Your task to perform on an android device: clear history in the chrome app Image 0: 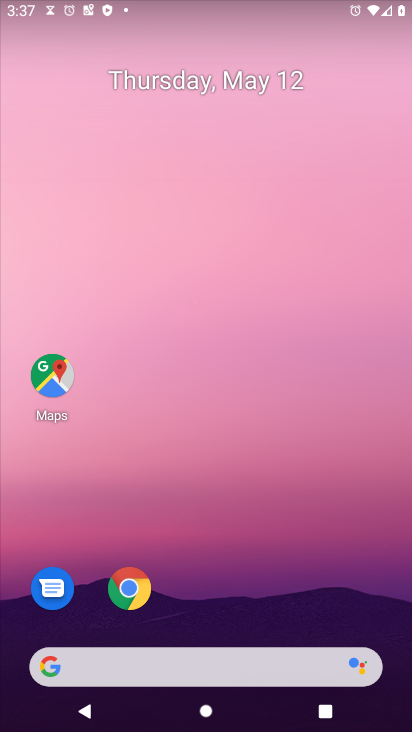
Step 0: drag from (244, 557) to (228, 37)
Your task to perform on an android device: clear history in the chrome app Image 1: 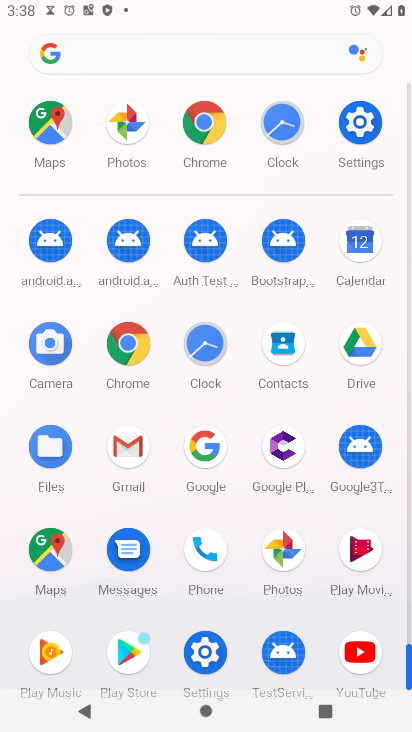
Step 1: drag from (10, 535) to (22, 203)
Your task to perform on an android device: clear history in the chrome app Image 2: 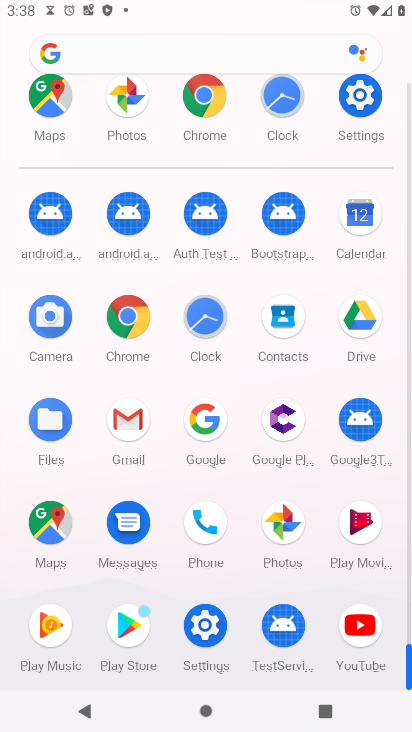
Step 2: click (124, 311)
Your task to perform on an android device: clear history in the chrome app Image 3: 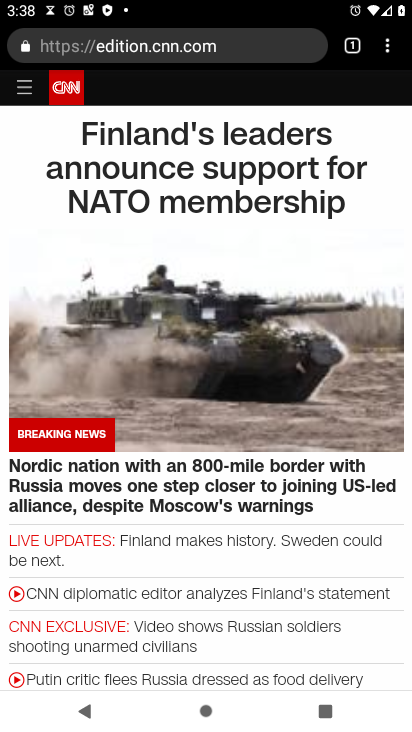
Step 3: drag from (390, 47) to (230, 546)
Your task to perform on an android device: clear history in the chrome app Image 4: 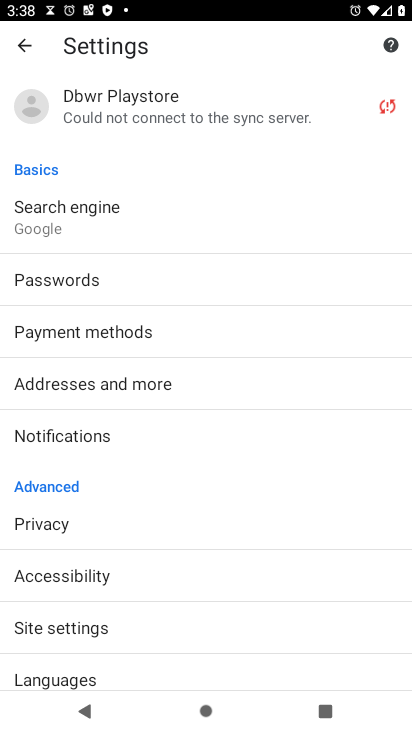
Step 4: drag from (233, 556) to (239, 325)
Your task to perform on an android device: clear history in the chrome app Image 5: 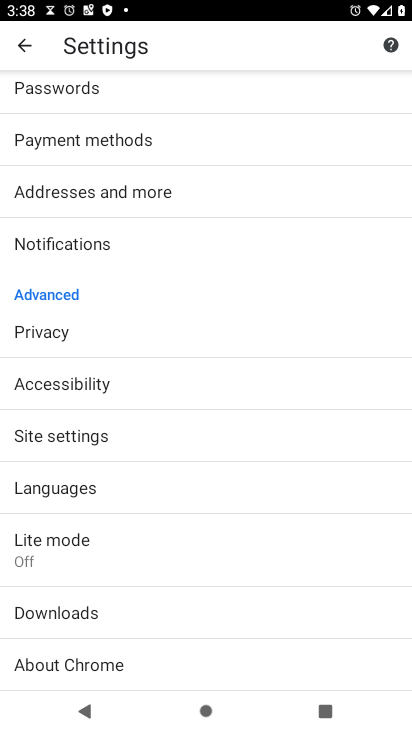
Step 5: drag from (229, 565) to (258, 245)
Your task to perform on an android device: clear history in the chrome app Image 6: 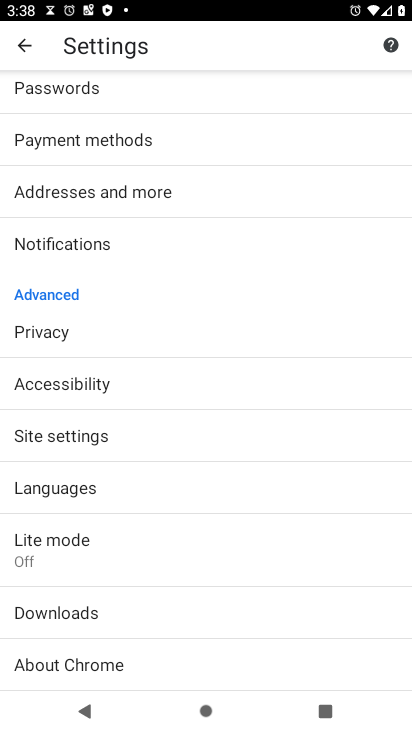
Step 6: drag from (250, 199) to (232, 585)
Your task to perform on an android device: clear history in the chrome app Image 7: 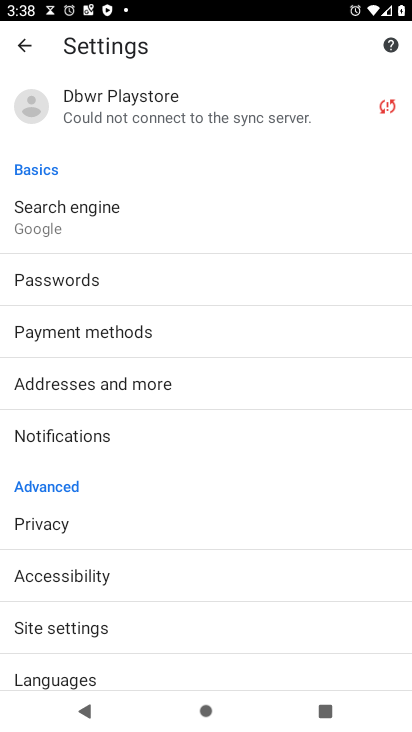
Step 7: drag from (235, 532) to (219, 194)
Your task to perform on an android device: clear history in the chrome app Image 8: 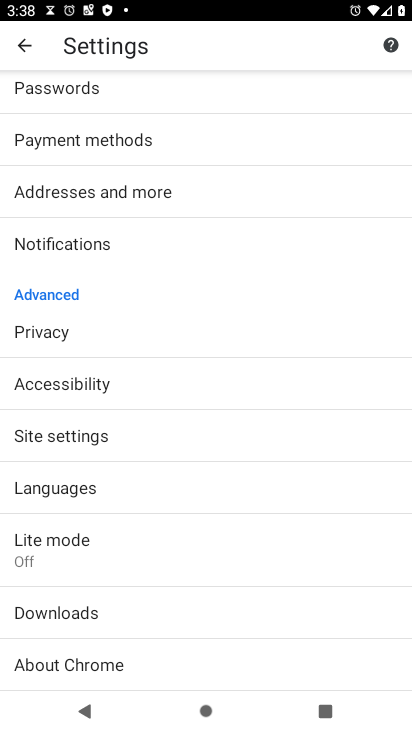
Step 8: drag from (189, 576) to (201, 195)
Your task to perform on an android device: clear history in the chrome app Image 9: 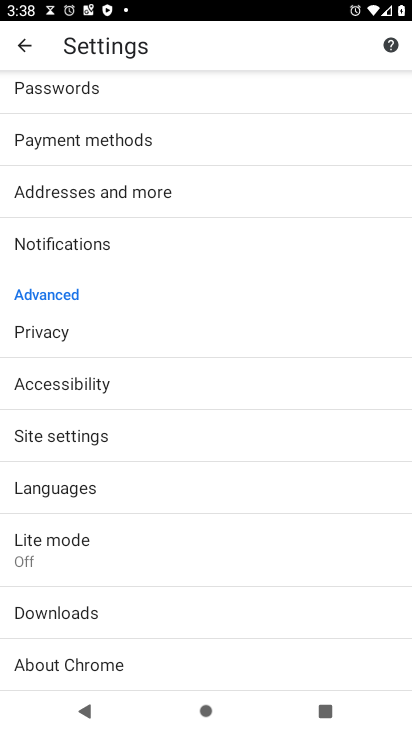
Step 9: drag from (195, 140) to (222, 555)
Your task to perform on an android device: clear history in the chrome app Image 10: 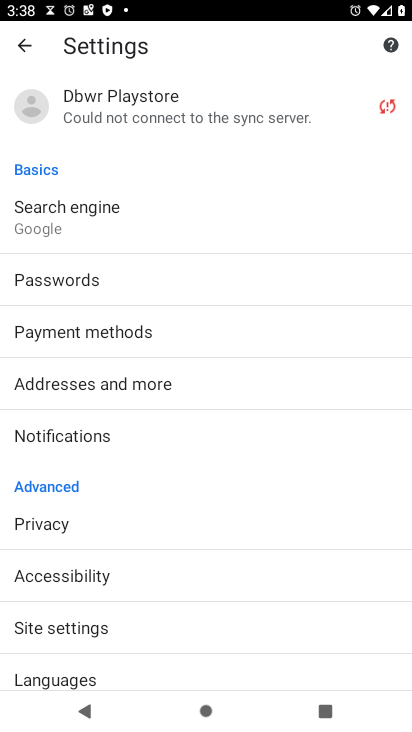
Step 10: drag from (158, 566) to (203, 235)
Your task to perform on an android device: clear history in the chrome app Image 11: 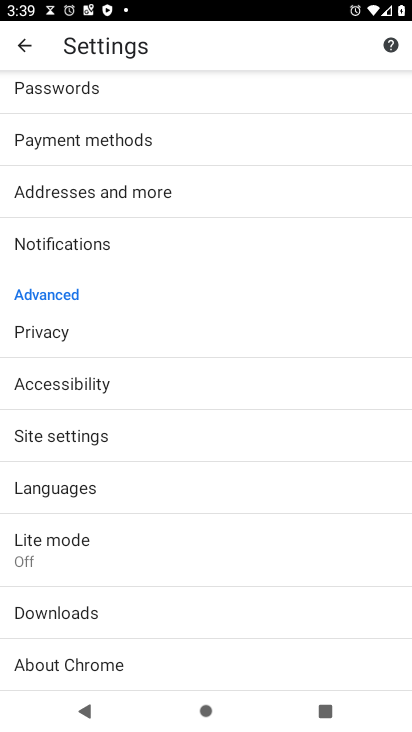
Step 11: click (21, 48)
Your task to perform on an android device: clear history in the chrome app Image 12: 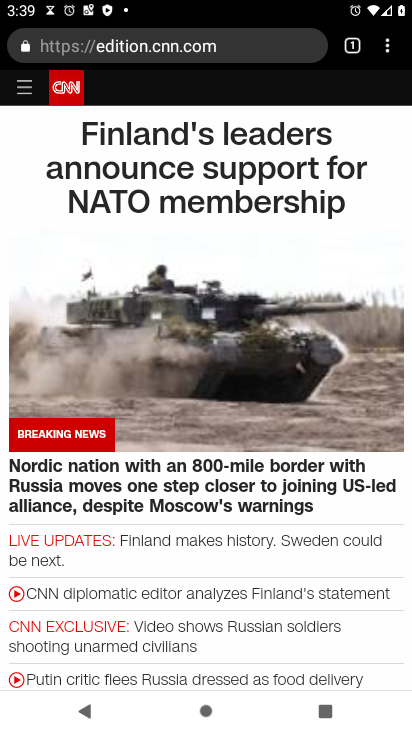
Step 12: drag from (394, 45) to (255, 250)
Your task to perform on an android device: clear history in the chrome app Image 13: 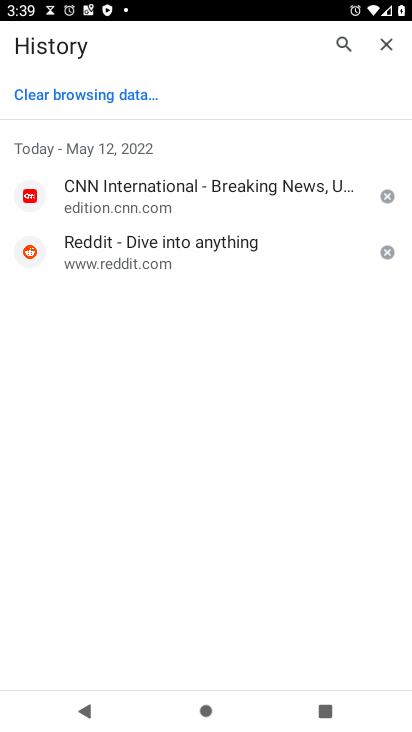
Step 13: click (130, 94)
Your task to perform on an android device: clear history in the chrome app Image 14: 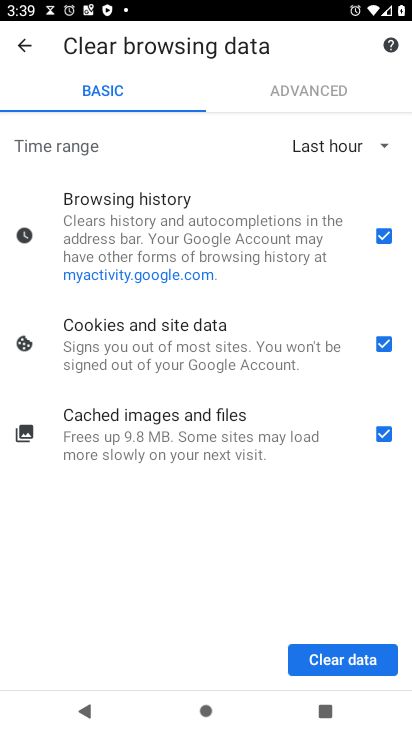
Step 14: click (316, 658)
Your task to perform on an android device: clear history in the chrome app Image 15: 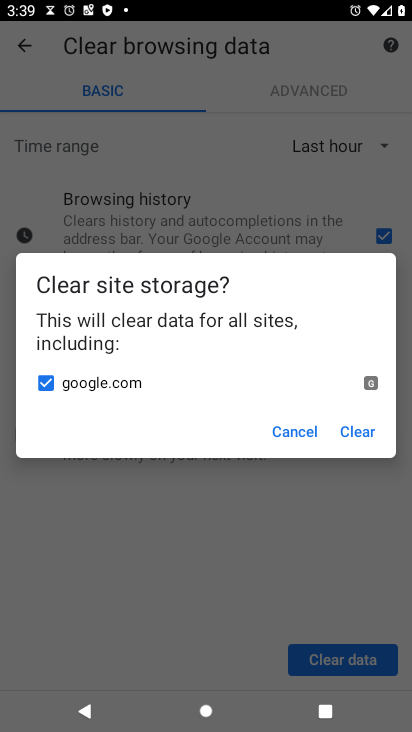
Step 15: click (370, 427)
Your task to perform on an android device: clear history in the chrome app Image 16: 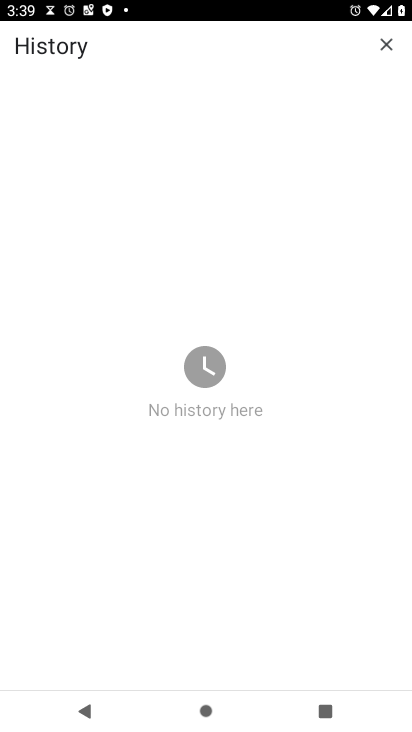
Step 16: task complete